Your task to perform on an android device: What's the weather today? Image 0: 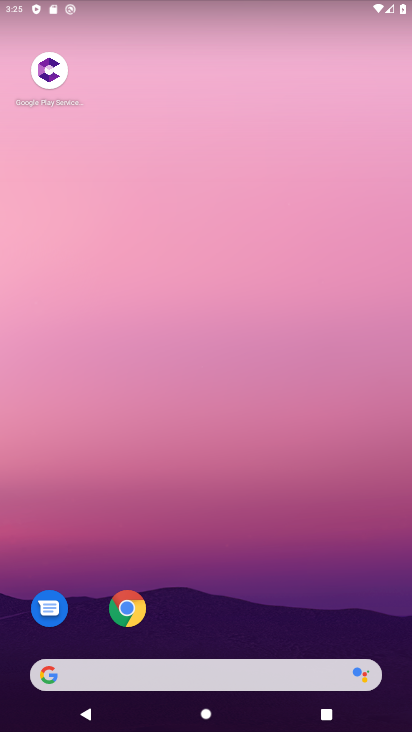
Step 0: drag from (334, 580) to (347, 3)
Your task to perform on an android device: What's the weather today? Image 1: 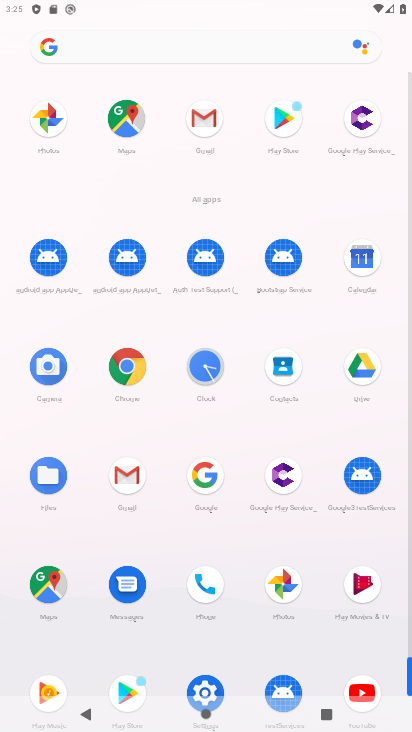
Step 1: click (55, 52)
Your task to perform on an android device: What's the weather today? Image 2: 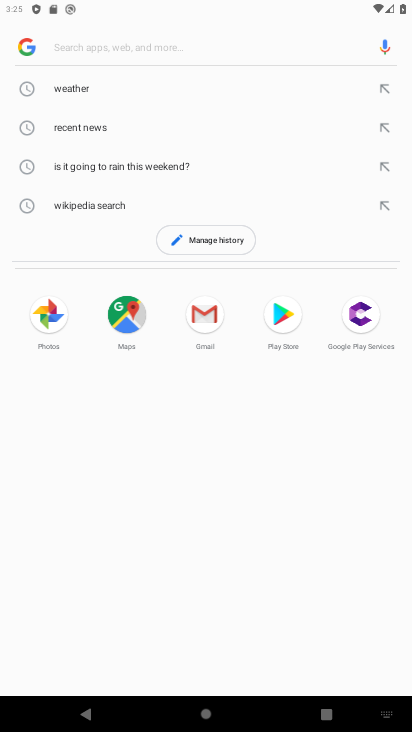
Step 2: click (16, 40)
Your task to perform on an android device: What's the weather today? Image 3: 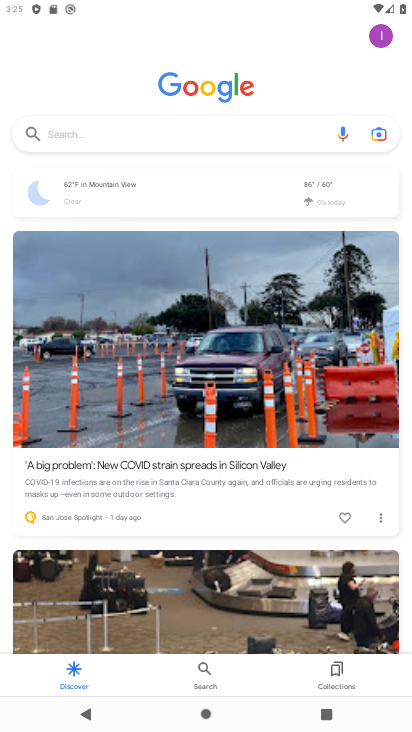
Step 3: click (117, 179)
Your task to perform on an android device: What's the weather today? Image 4: 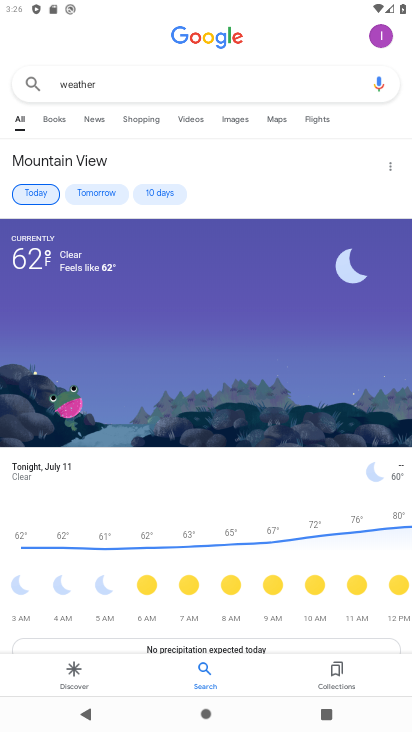
Step 4: task complete